Your task to perform on an android device: snooze an email in the gmail app Image 0: 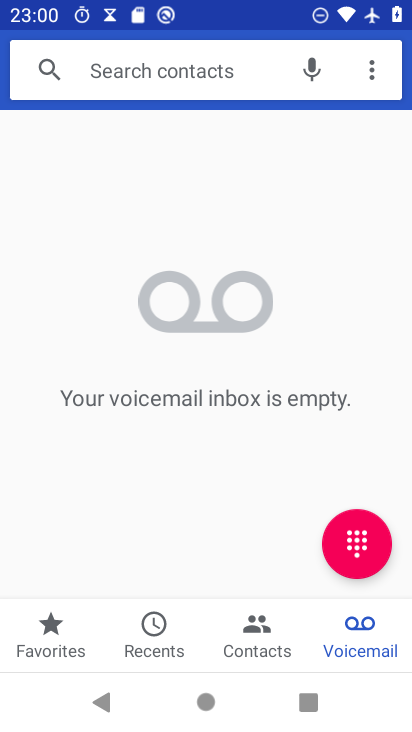
Step 0: press home button
Your task to perform on an android device: snooze an email in the gmail app Image 1: 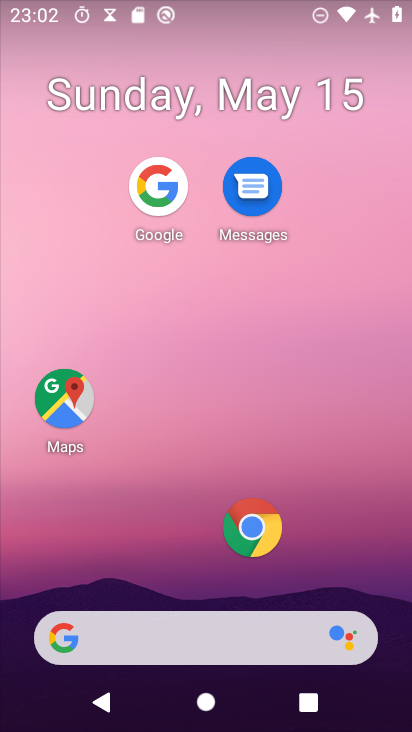
Step 1: drag from (121, 638) to (261, 140)
Your task to perform on an android device: snooze an email in the gmail app Image 2: 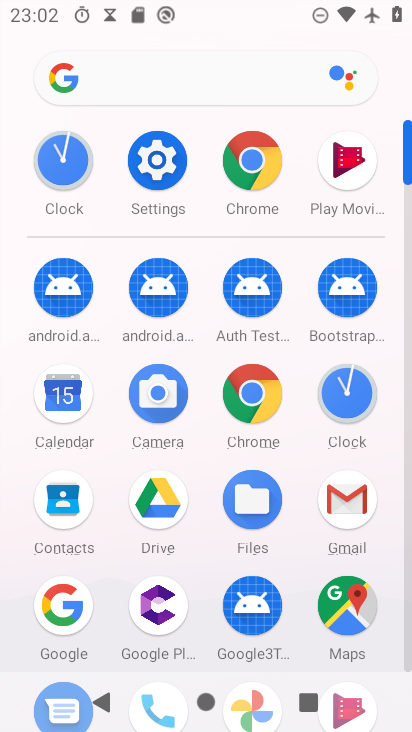
Step 2: click (347, 506)
Your task to perform on an android device: snooze an email in the gmail app Image 3: 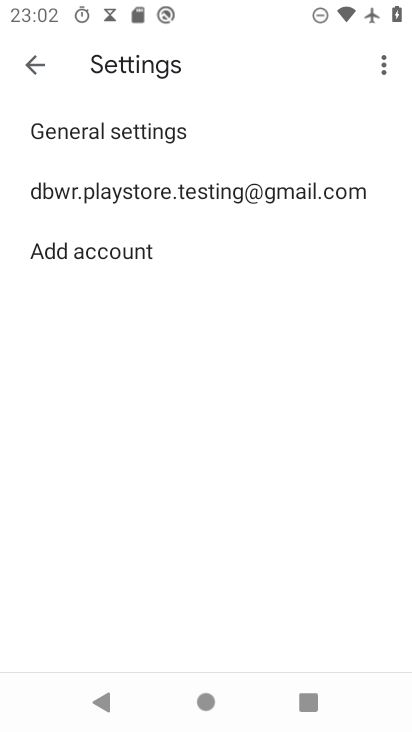
Step 3: click (23, 71)
Your task to perform on an android device: snooze an email in the gmail app Image 4: 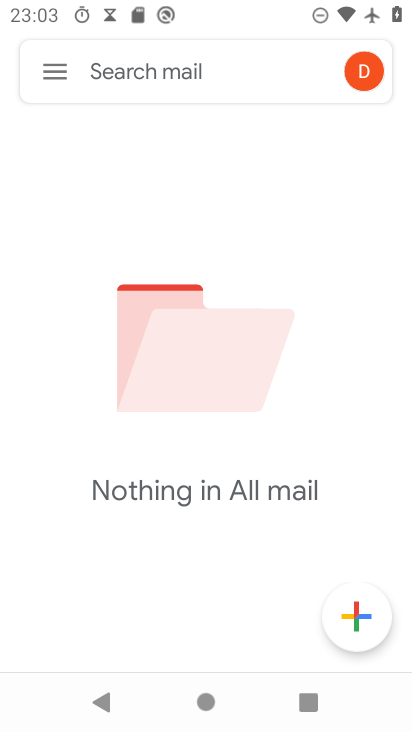
Step 4: task complete